Your task to perform on an android device: Open the calendar and show me this week's events? Image 0: 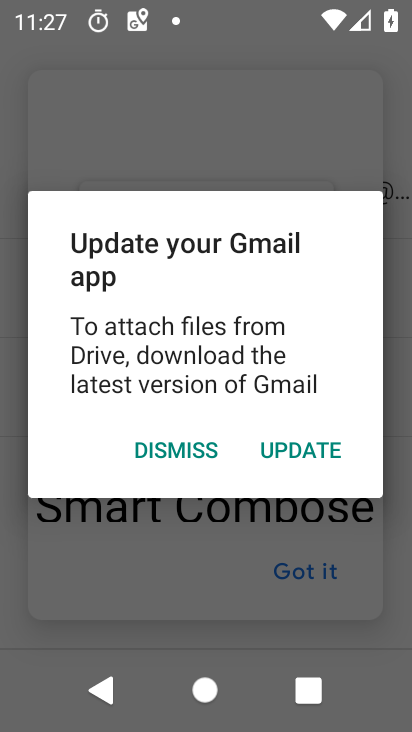
Step 0: press home button
Your task to perform on an android device: Open the calendar and show me this week's events? Image 1: 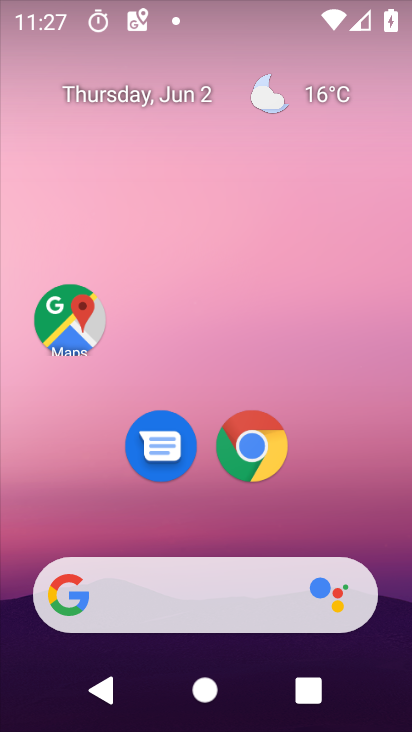
Step 1: drag from (365, 489) to (368, 143)
Your task to perform on an android device: Open the calendar and show me this week's events? Image 2: 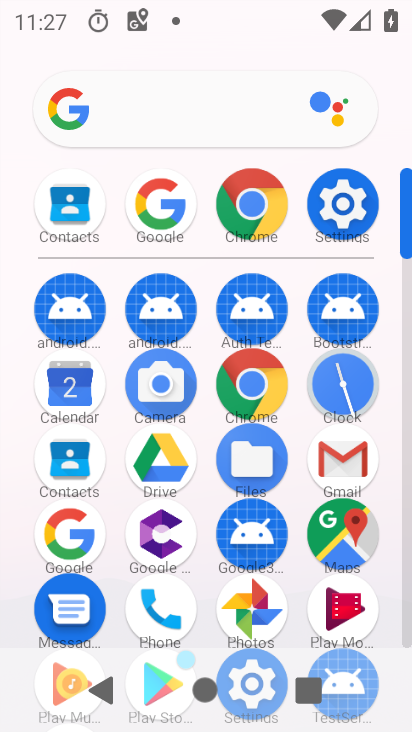
Step 2: click (85, 406)
Your task to perform on an android device: Open the calendar and show me this week's events? Image 3: 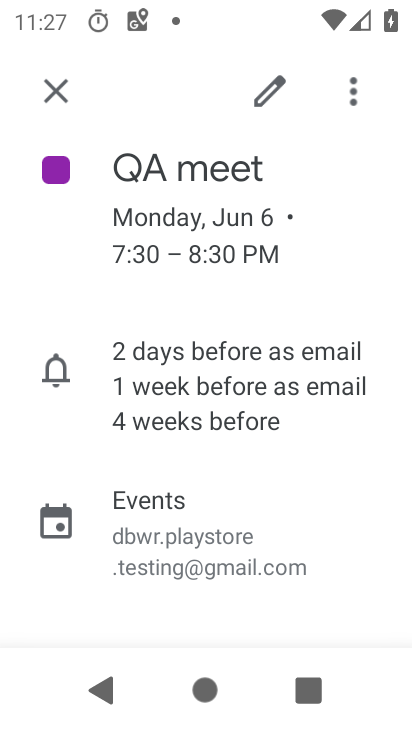
Step 3: click (58, 94)
Your task to perform on an android device: Open the calendar and show me this week's events? Image 4: 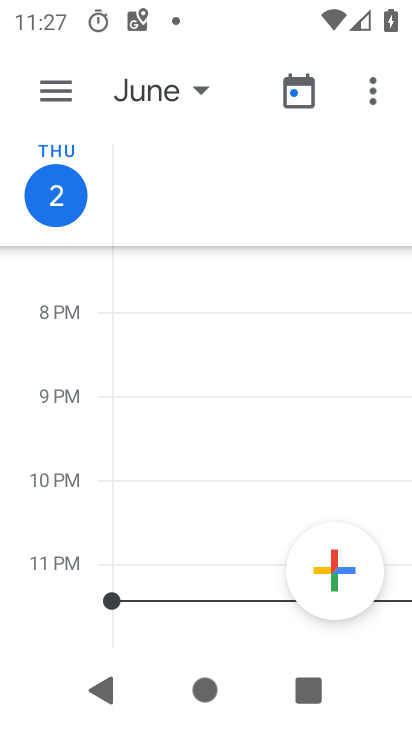
Step 4: click (204, 91)
Your task to perform on an android device: Open the calendar and show me this week's events? Image 5: 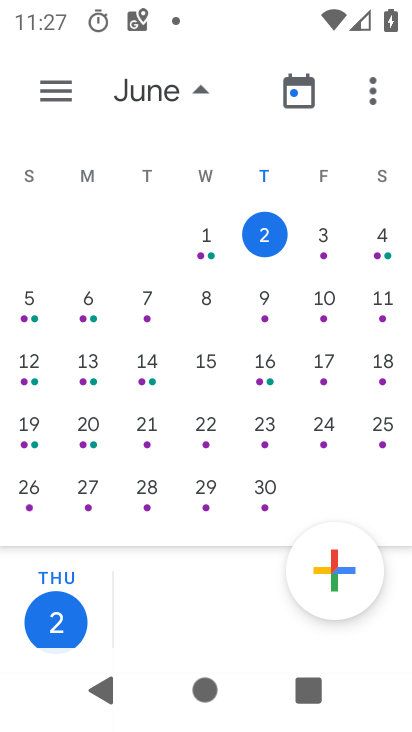
Step 5: click (321, 235)
Your task to perform on an android device: Open the calendar and show me this week's events? Image 6: 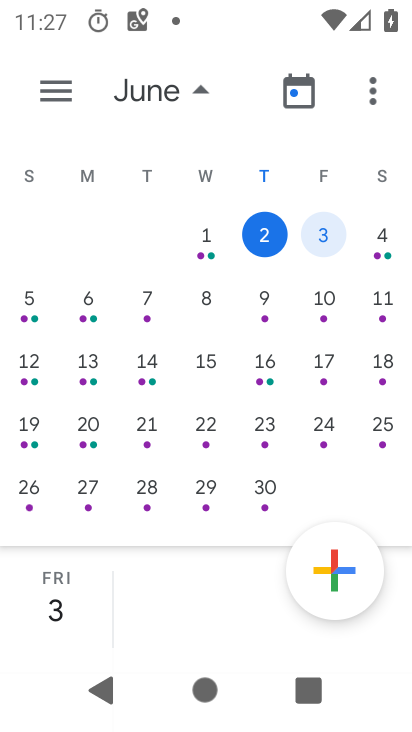
Step 6: drag from (233, 533) to (224, 243)
Your task to perform on an android device: Open the calendar and show me this week's events? Image 7: 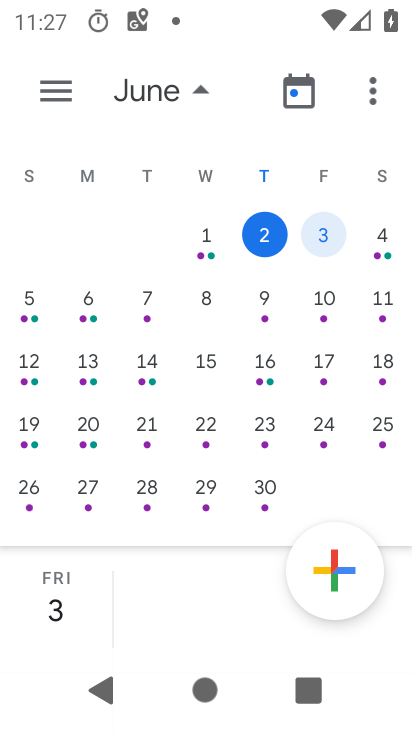
Step 7: click (71, 84)
Your task to perform on an android device: Open the calendar and show me this week's events? Image 8: 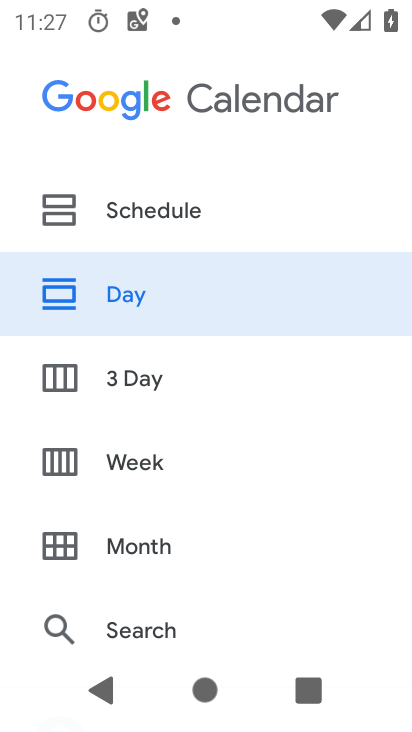
Step 8: click (189, 202)
Your task to perform on an android device: Open the calendar and show me this week's events? Image 9: 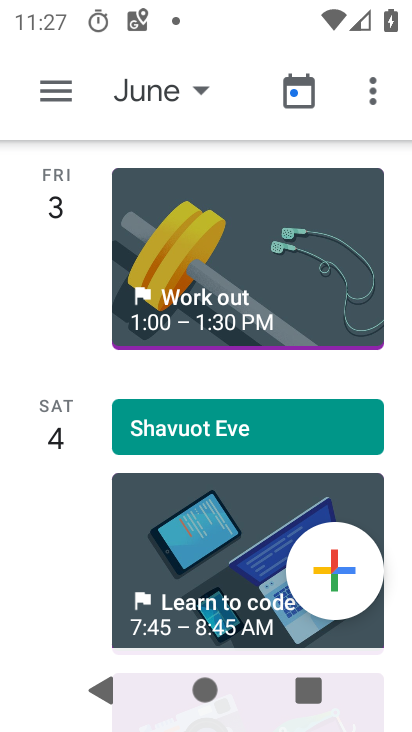
Step 9: task complete